Your task to perform on an android device: Open calendar and show me the third week of next month Image 0: 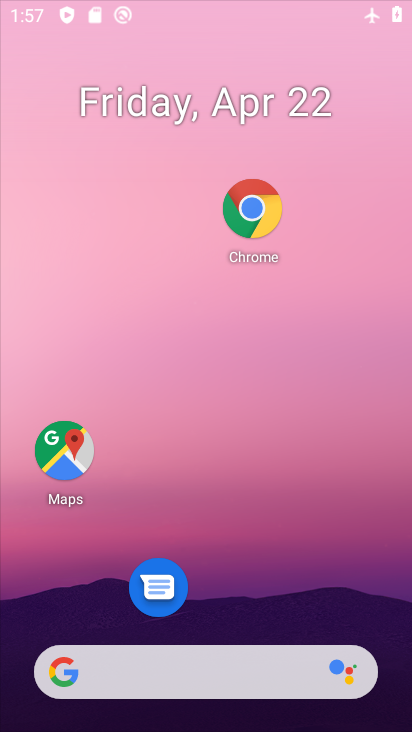
Step 0: click (215, 72)
Your task to perform on an android device: Open calendar and show me the third week of next month Image 1: 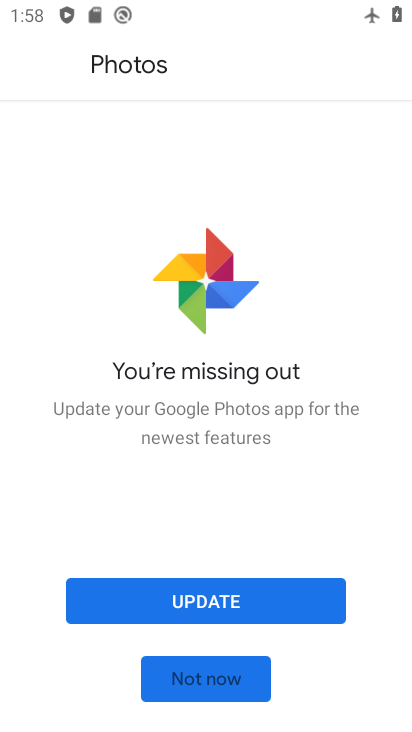
Step 1: click (235, 701)
Your task to perform on an android device: Open calendar and show me the third week of next month Image 2: 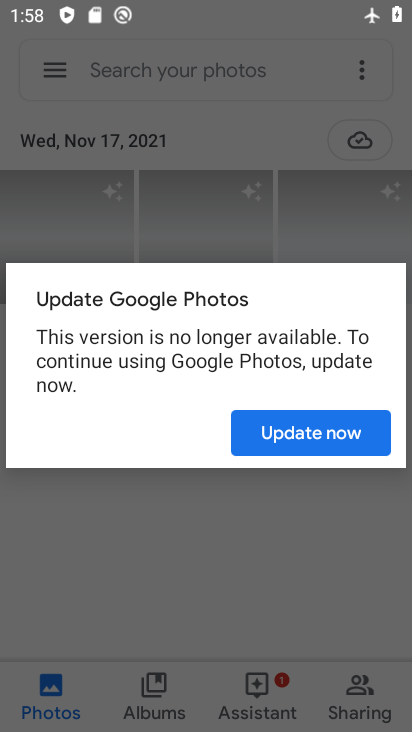
Step 2: press home button
Your task to perform on an android device: Open calendar and show me the third week of next month Image 3: 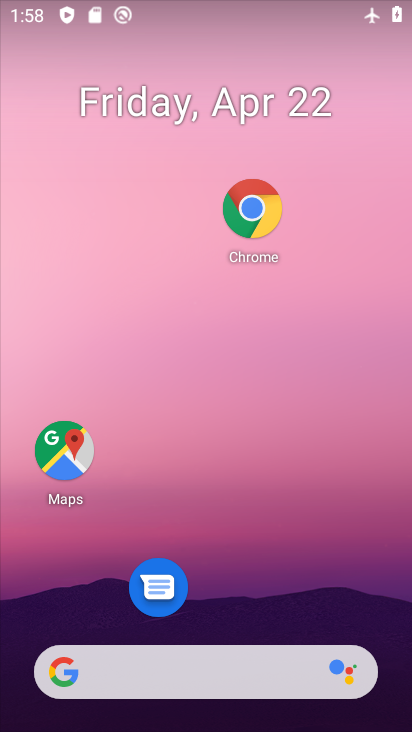
Step 3: drag from (220, 619) to (218, 75)
Your task to perform on an android device: Open calendar and show me the third week of next month Image 4: 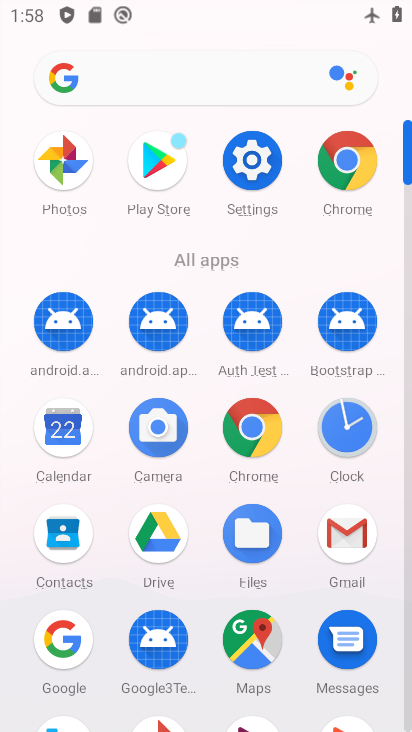
Step 4: click (54, 419)
Your task to perform on an android device: Open calendar and show me the third week of next month Image 5: 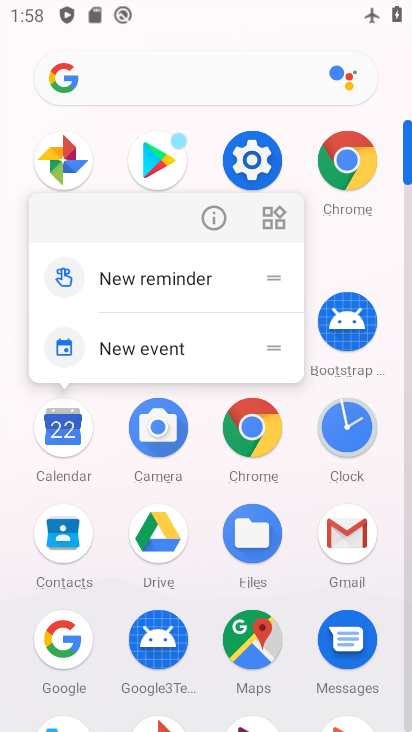
Step 5: click (214, 219)
Your task to perform on an android device: Open calendar and show me the third week of next month Image 6: 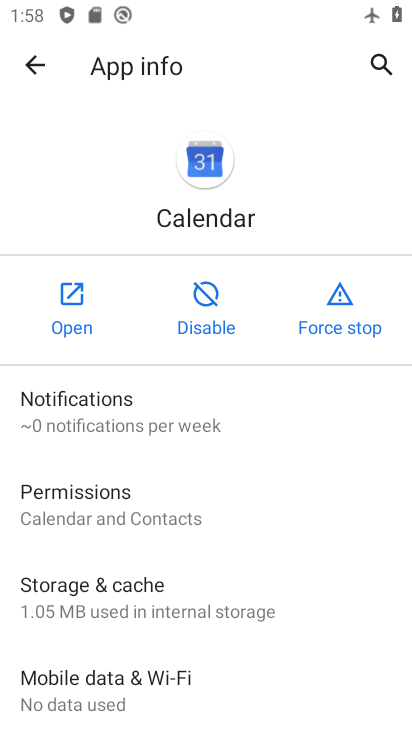
Step 6: click (71, 294)
Your task to perform on an android device: Open calendar and show me the third week of next month Image 7: 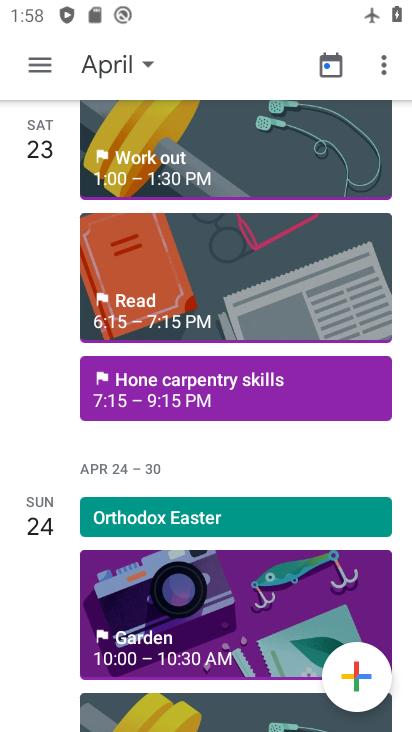
Step 7: click (115, 44)
Your task to perform on an android device: Open calendar and show me the third week of next month Image 8: 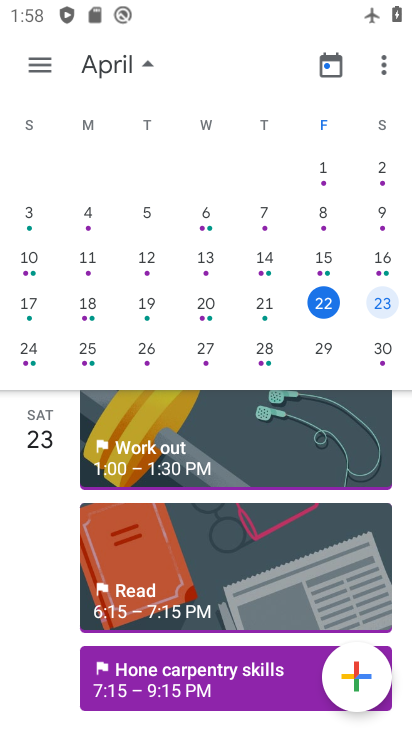
Step 8: drag from (348, 224) to (18, 263)
Your task to perform on an android device: Open calendar and show me the third week of next month Image 9: 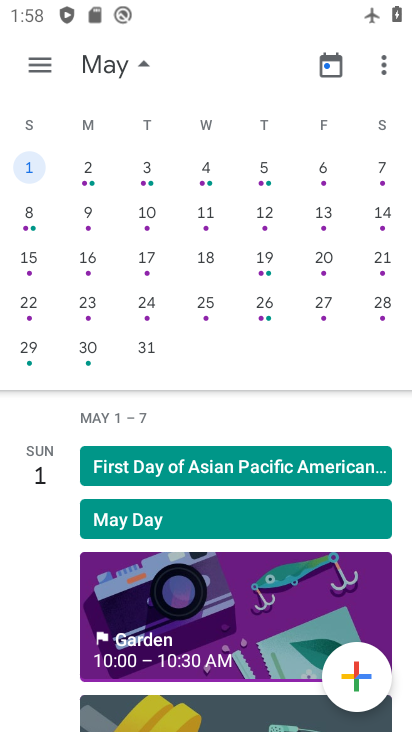
Step 9: click (321, 264)
Your task to perform on an android device: Open calendar and show me the third week of next month Image 10: 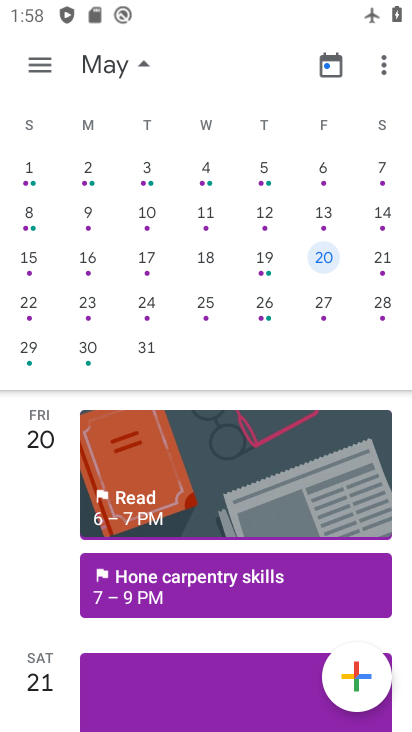
Step 10: task complete